Your task to perform on an android device: What is the speed of a train? Image 0: 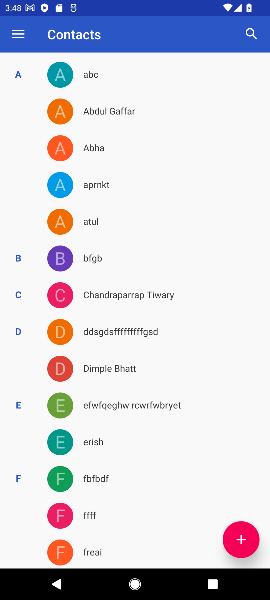
Step 0: press home button
Your task to perform on an android device: What is the speed of a train? Image 1: 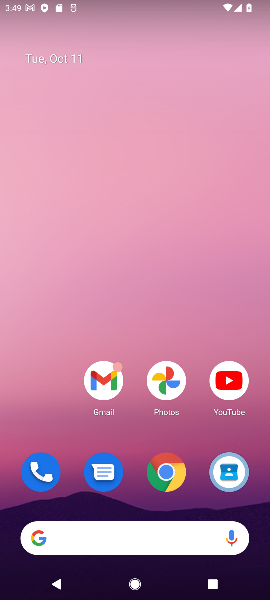
Step 1: click (118, 542)
Your task to perform on an android device: What is the speed of a train? Image 2: 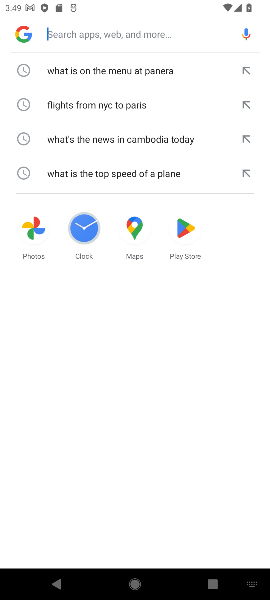
Step 2: type "What is the speed of a train?"
Your task to perform on an android device: What is the speed of a train? Image 3: 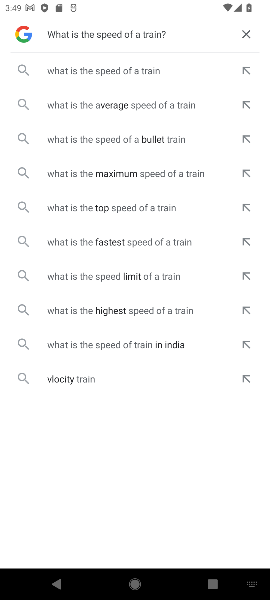
Step 3: click (148, 67)
Your task to perform on an android device: What is the speed of a train? Image 4: 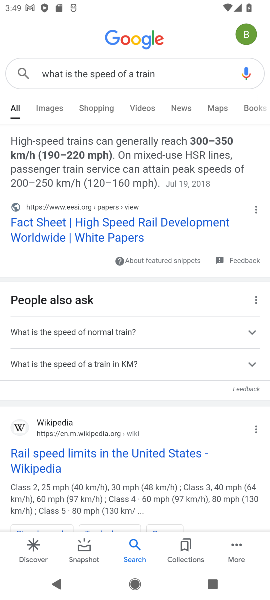
Step 4: task complete